Your task to perform on an android device: turn off location history Image 0: 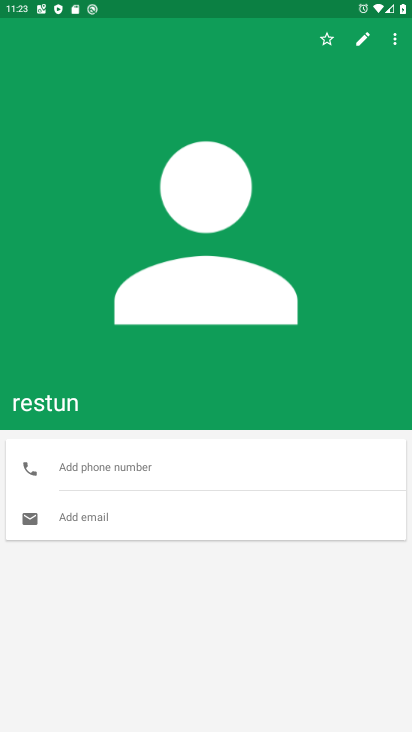
Step 0: press home button
Your task to perform on an android device: turn off location history Image 1: 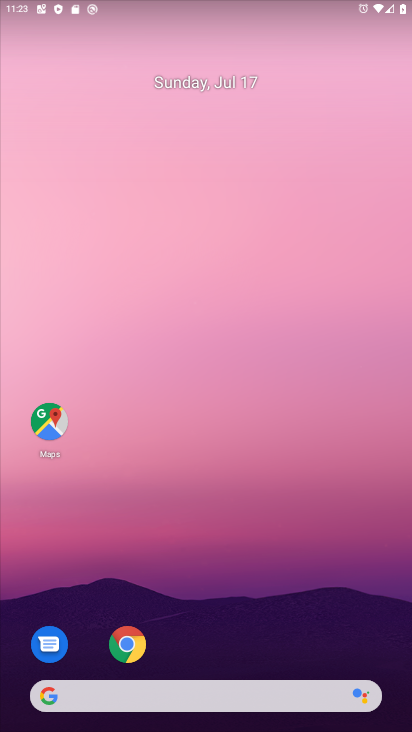
Step 1: drag from (301, 608) to (272, 54)
Your task to perform on an android device: turn off location history Image 2: 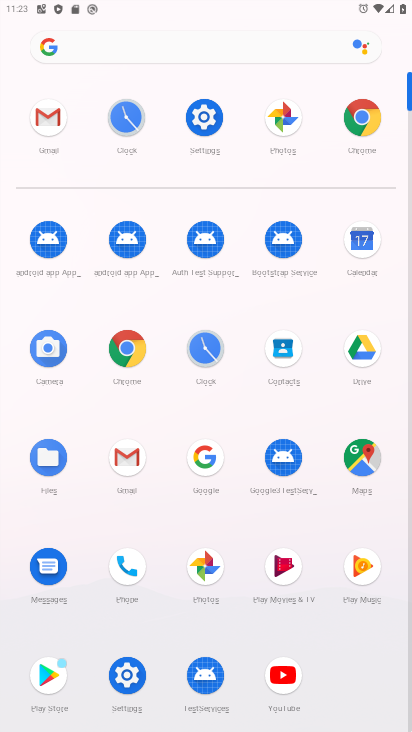
Step 2: click (200, 118)
Your task to perform on an android device: turn off location history Image 3: 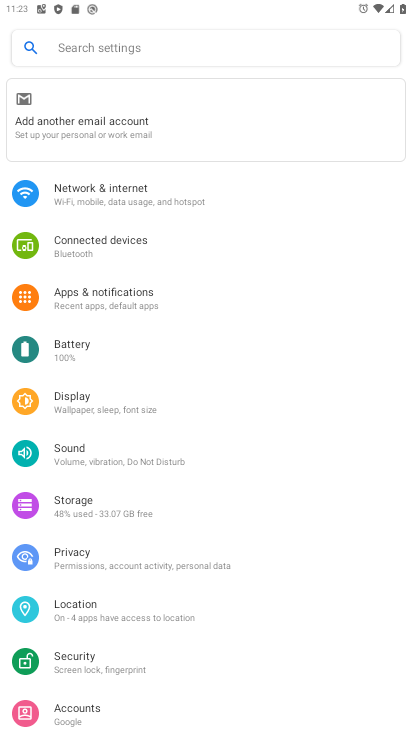
Step 3: click (122, 602)
Your task to perform on an android device: turn off location history Image 4: 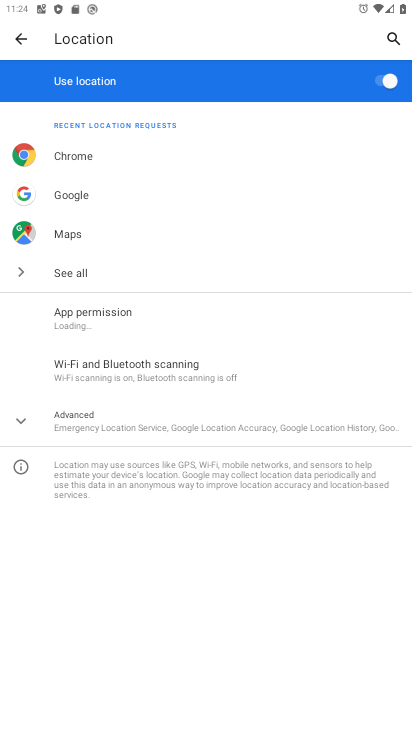
Step 4: click (141, 435)
Your task to perform on an android device: turn off location history Image 5: 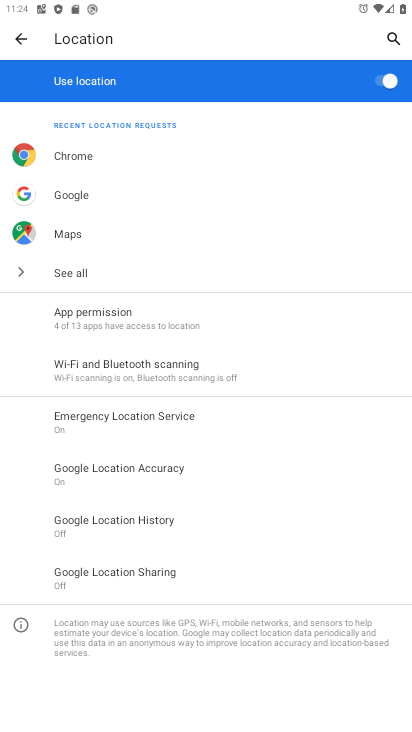
Step 5: click (134, 531)
Your task to perform on an android device: turn off location history Image 6: 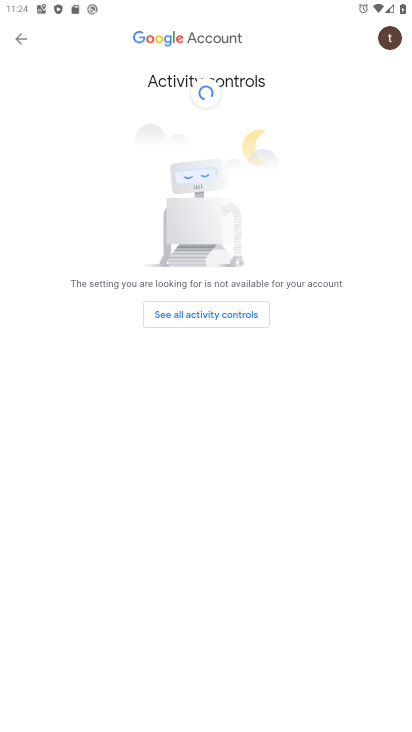
Step 6: task complete